Your task to perform on an android device: delete location history Image 0: 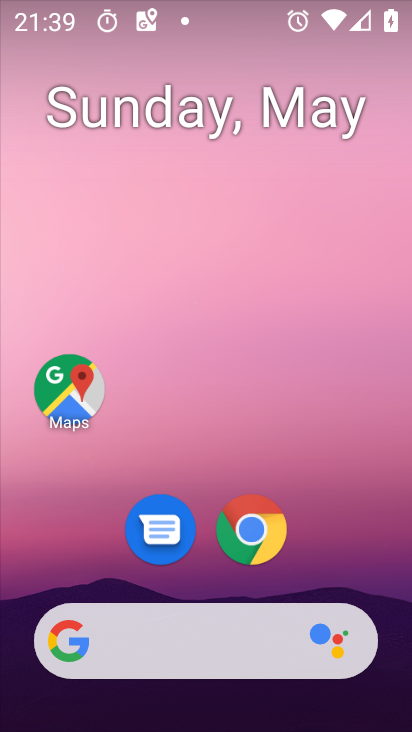
Step 0: click (79, 392)
Your task to perform on an android device: delete location history Image 1: 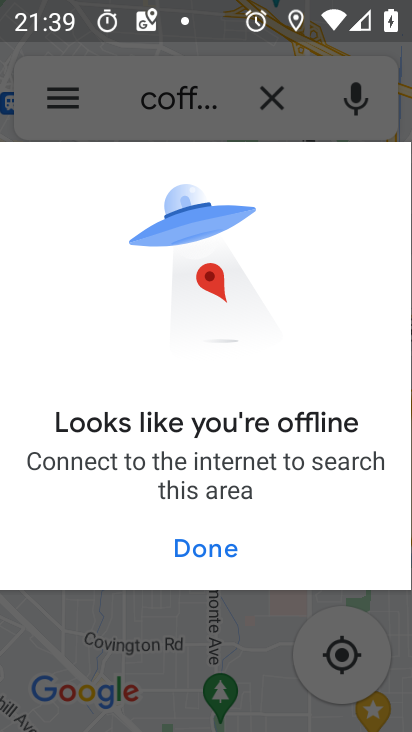
Step 1: click (196, 564)
Your task to perform on an android device: delete location history Image 2: 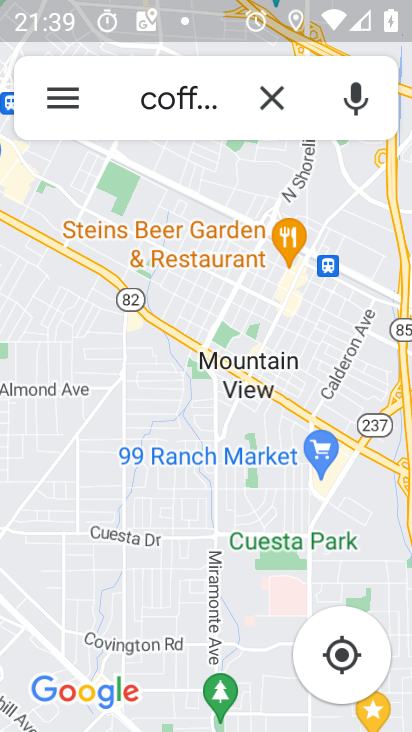
Step 2: click (82, 101)
Your task to perform on an android device: delete location history Image 3: 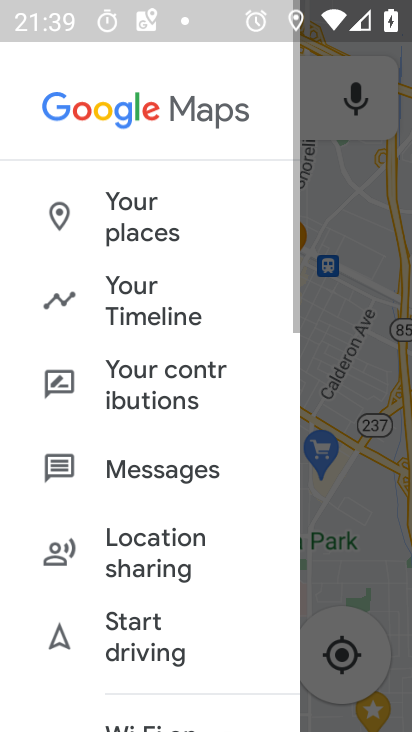
Step 3: click (119, 305)
Your task to perform on an android device: delete location history Image 4: 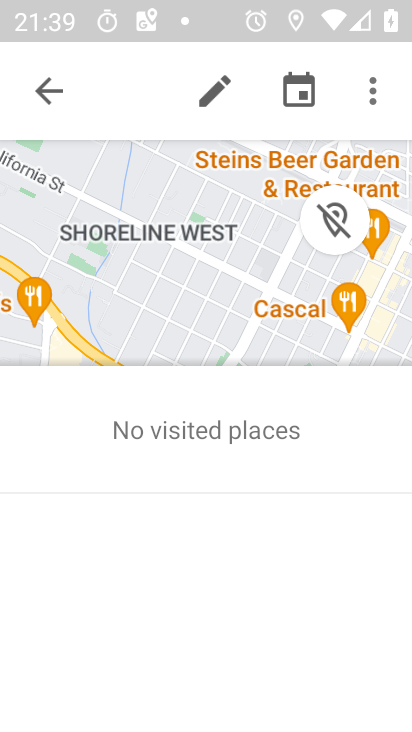
Step 4: click (376, 95)
Your task to perform on an android device: delete location history Image 5: 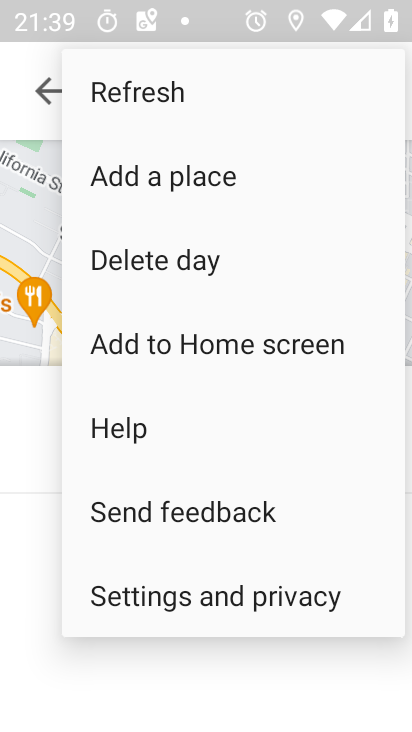
Step 5: click (240, 596)
Your task to perform on an android device: delete location history Image 6: 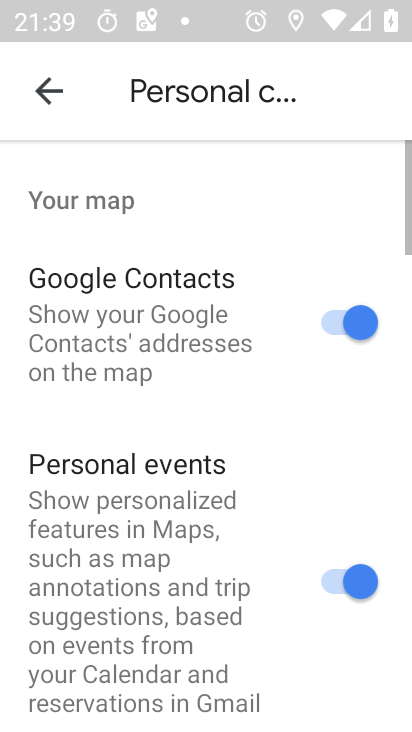
Step 6: drag from (243, 645) to (211, 26)
Your task to perform on an android device: delete location history Image 7: 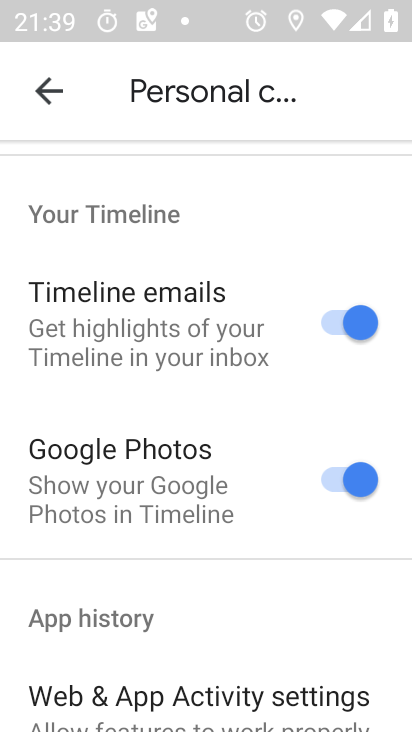
Step 7: drag from (211, 656) to (170, 81)
Your task to perform on an android device: delete location history Image 8: 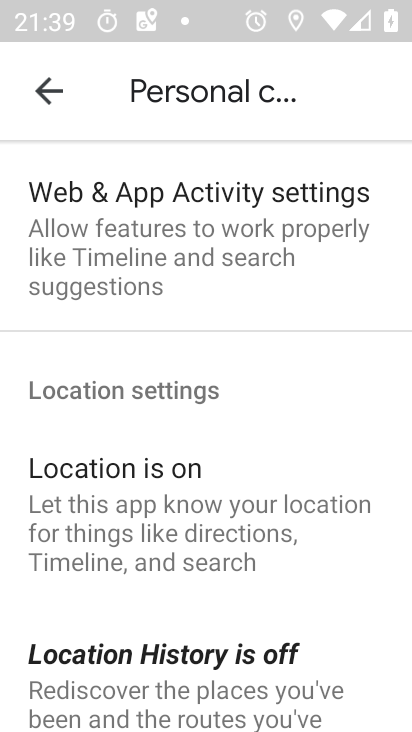
Step 8: drag from (194, 582) to (172, 230)
Your task to perform on an android device: delete location history Image 9: 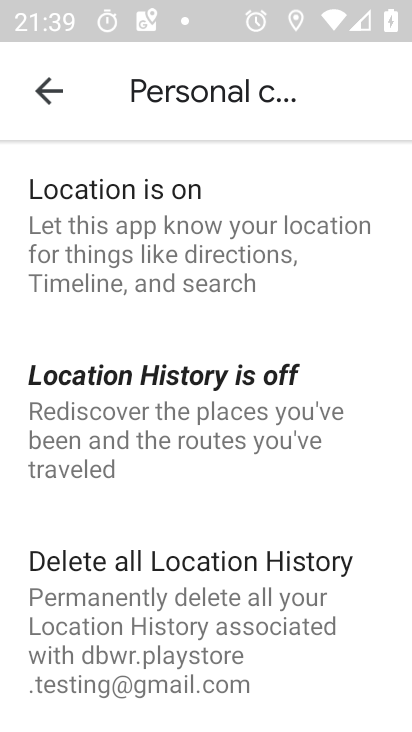
Step 9: click (171, 591)
Your task to perform on an android device: delete location history Image 10: 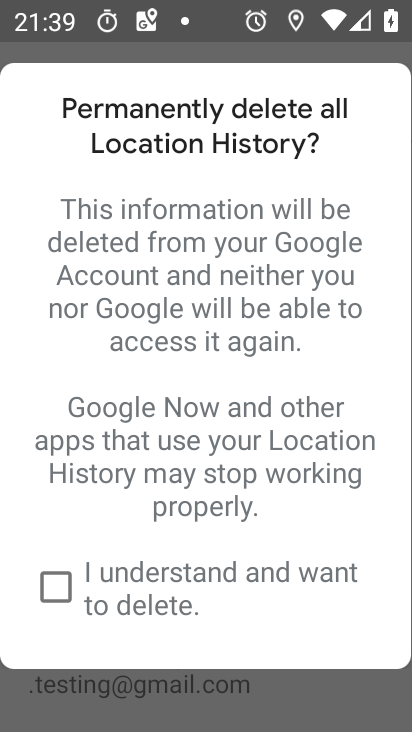
Step 10: click (54, 591)
Your task to perform on an android device: delete location history Image 11: 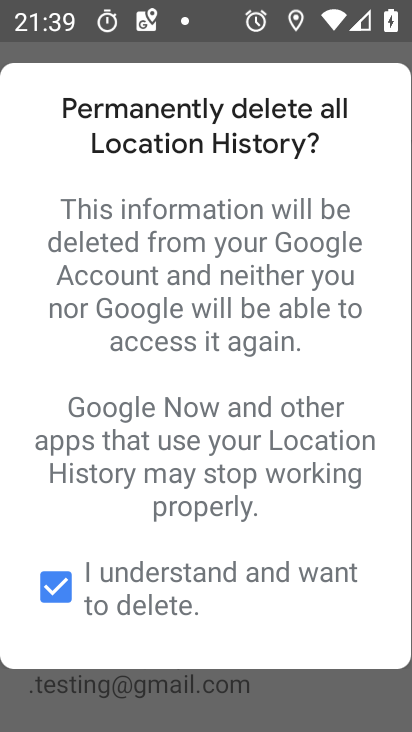
Step 11: drag from (222, 600) to (221, 343)
Your task to perform on an android device: delete location history Image 12: 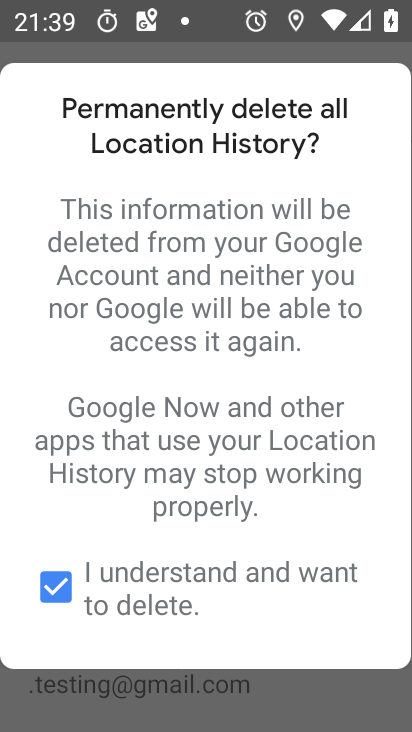
Step 12: click (371, 652)
Your task to perform on an android device: delete location history Image 13: 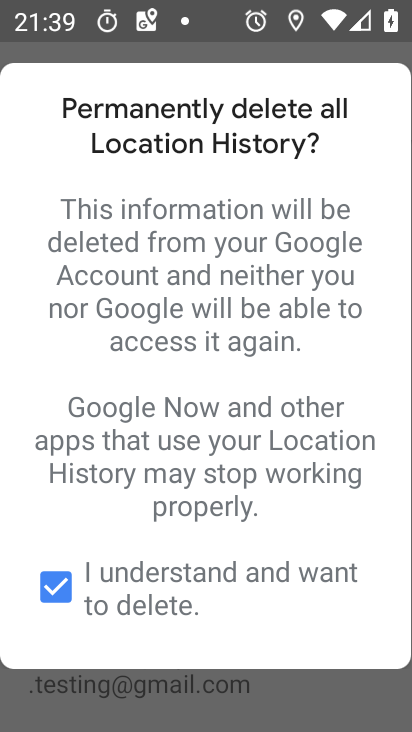
Step 13: click (373, 638)
Your task to perform on an android device: delete location history Image 14: 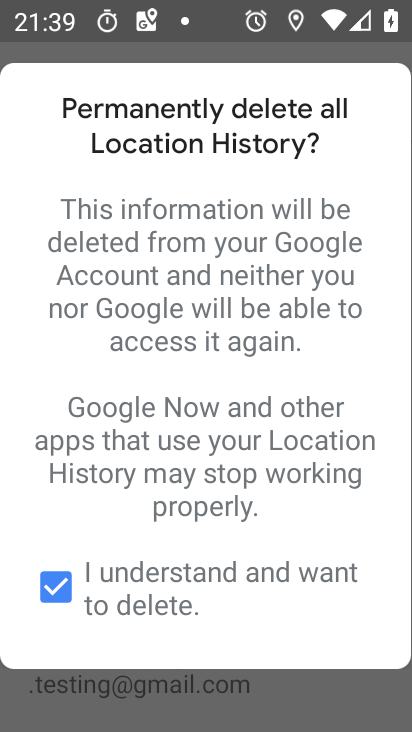
Step 14: drag from (362, 603) to (356, 285)
Your task to perform on an android device: delete location history Image 15: 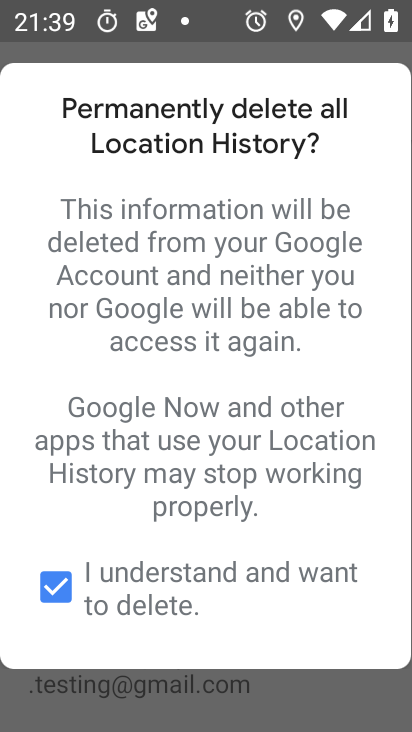
Step 15: click (364, 655)
Your task to perform on an android device: delete location history Image 16: 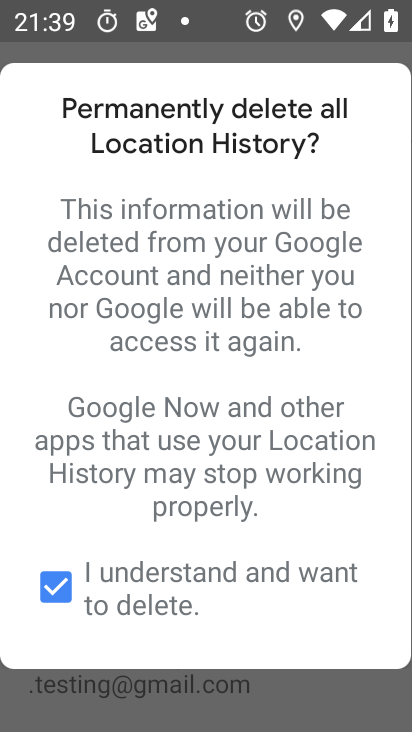
Step 16: click (342, 654)
Your task to perform on an android device: delete location history Image 17: 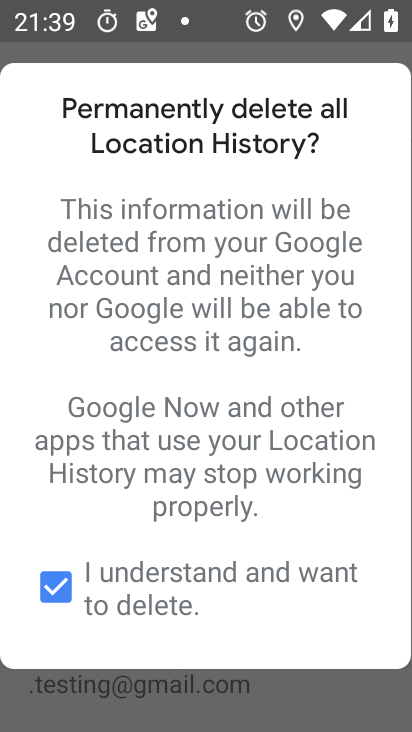
Step 17: click (342, 634)
Your task to perform on an android device: delete location history Image 18: 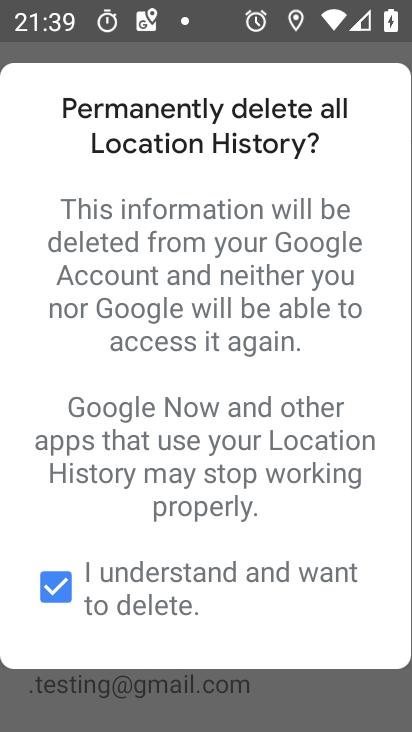
Step 18: click (342, 600)
Your task to perform on an android device: delete location history Image 19: 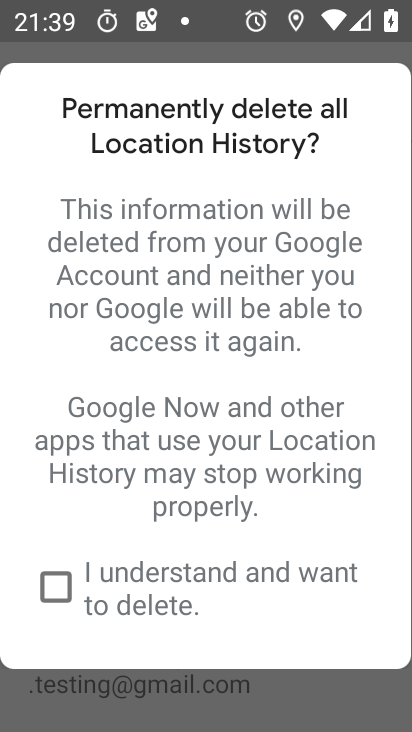
Step 19: click (363, 638)
Your task to perform on an android device: delete location history Image 20: 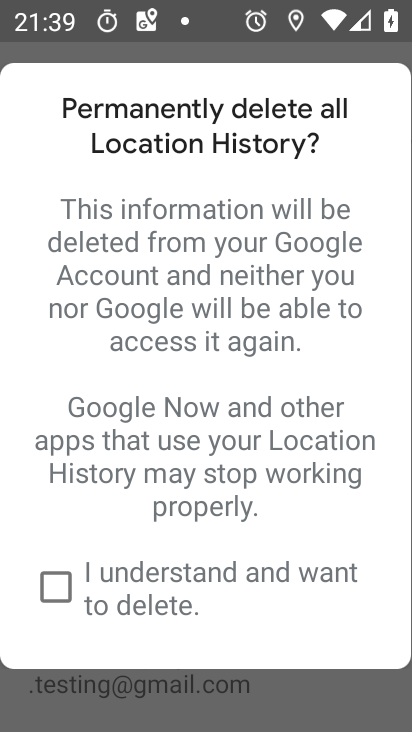
Step 20: click (273, 650)
Your task to perform on an android device: delete location history Image 21: 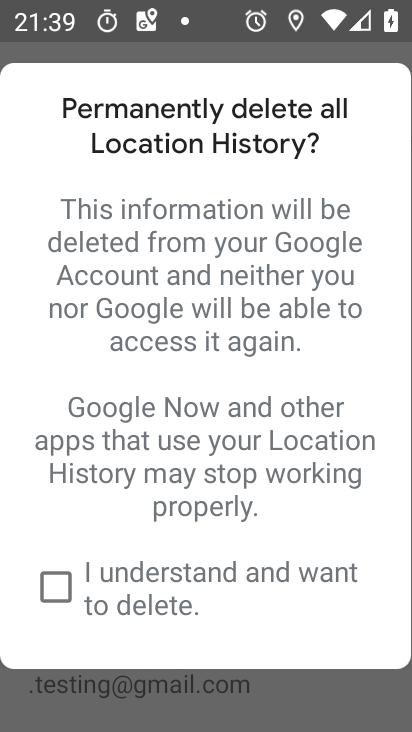
Step 21: drag from (322, 617) to (343, 647)
Your task to perform on an android device: delete location history Image 22: 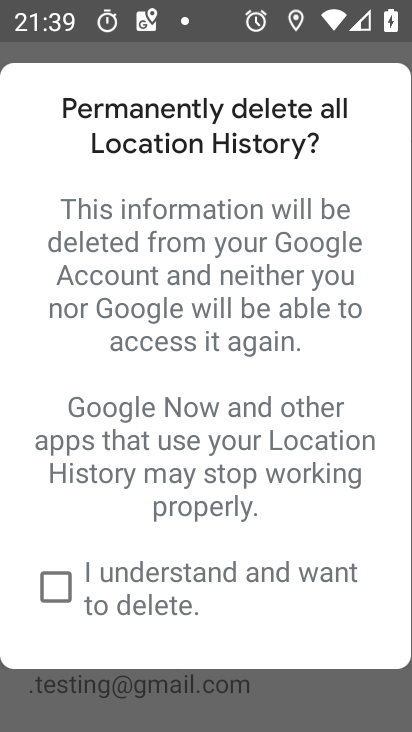
Step 22: click (60, 582)
Your task to perform on an android device: delete location history Image 23: 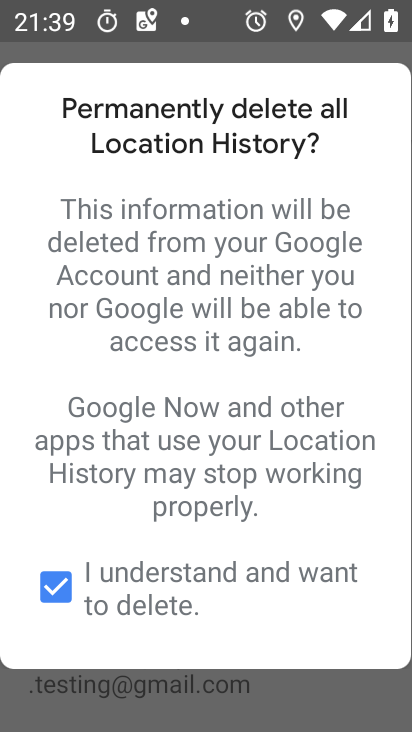
Step 23: drag from (168, 542) to (190, 133)
Your task to perform on an android device: delete location history Image 24: 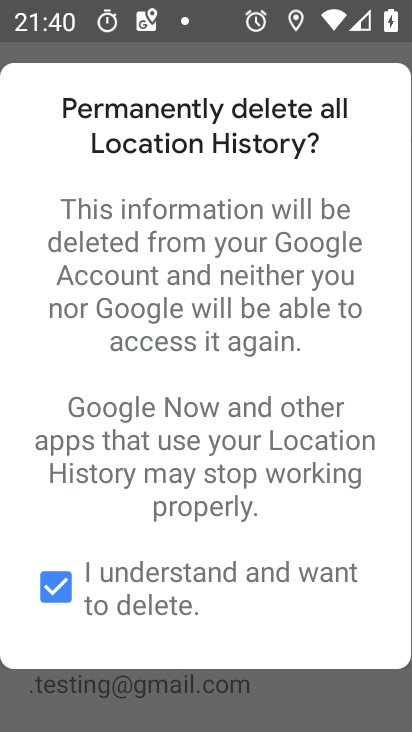
Step 24: click (345, 647)
Your task to perform on an android device: delete location history Image 25: 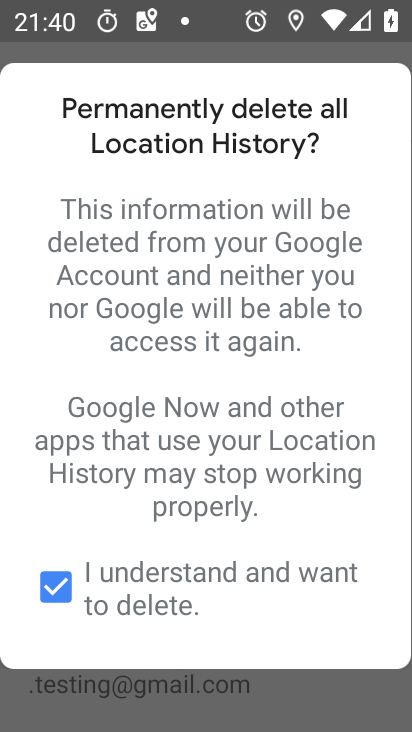
Step 25: click (330, 610)
Your task to perform on an android device: delete location history Image 26: 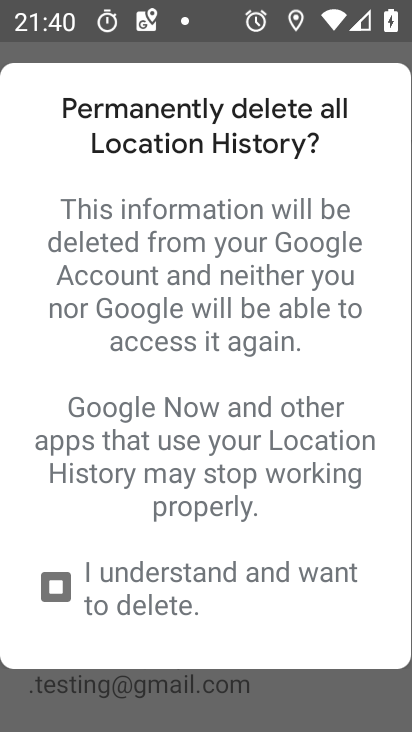
Step 26: click (356, 644)
Your task to perform on an android device: delete location history Image 27: 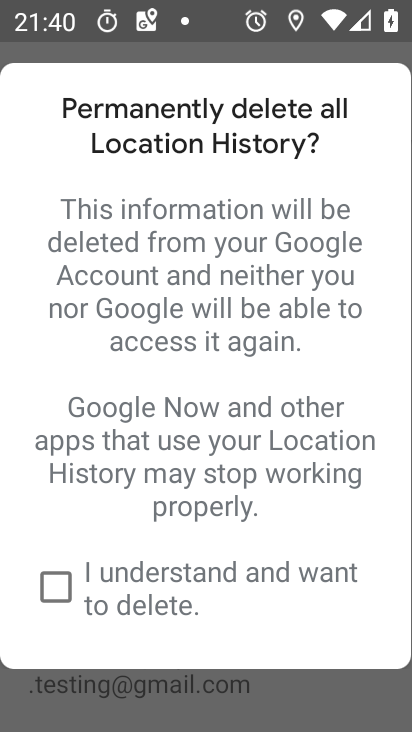
Step 27: click (70, 583)
Your task to perform on an android device: delete location history Image 28: 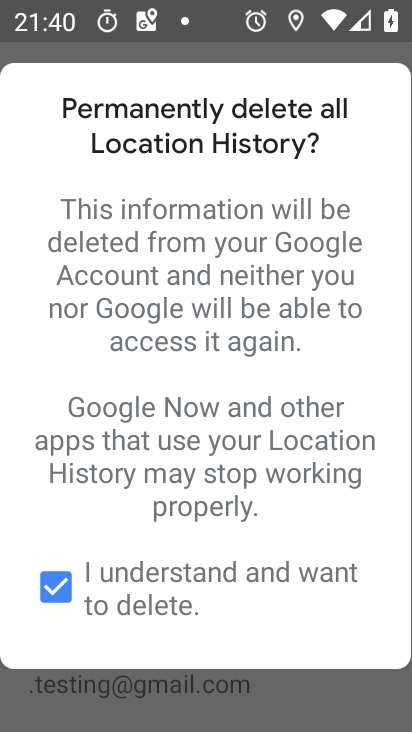
Step 28: task complete